Your task to perform on an android device: Open calendar and show me the third week of next month Image 0: 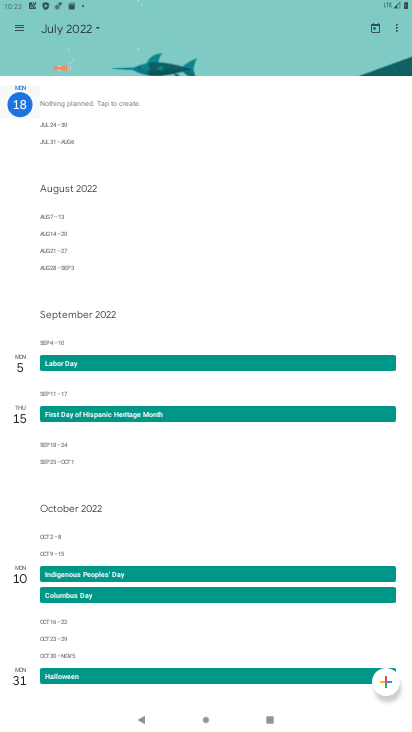
Step 0: click (53, 29)
Your task to perform on an android device: Open calendar and show me the third week of next month Image 1: 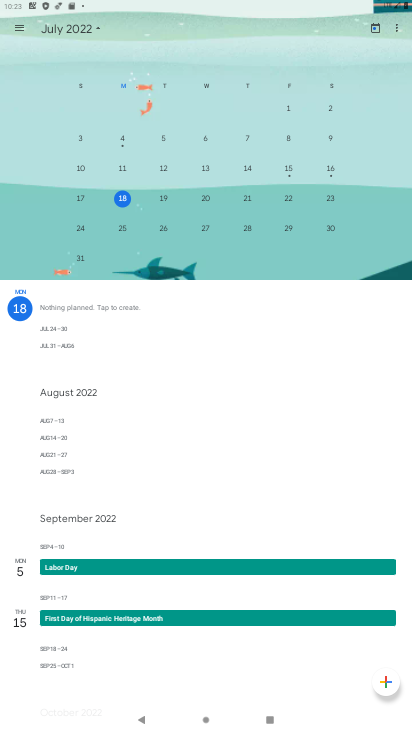
Step 1: drag from (73, 225) to (19, 264)
Your task to perform on an android device: Open calendar and show me the third week of next month Image 2: 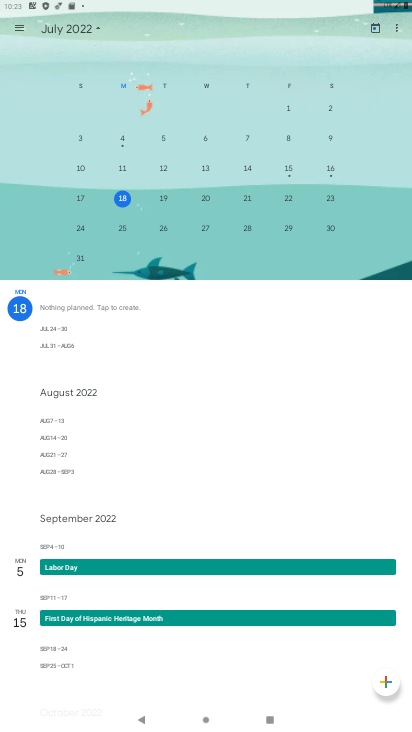
Step 2: drag from (377, 178) to (32, 303)
Your task to perform on an android device: Open calendar and show me the third week of next month Image 3: 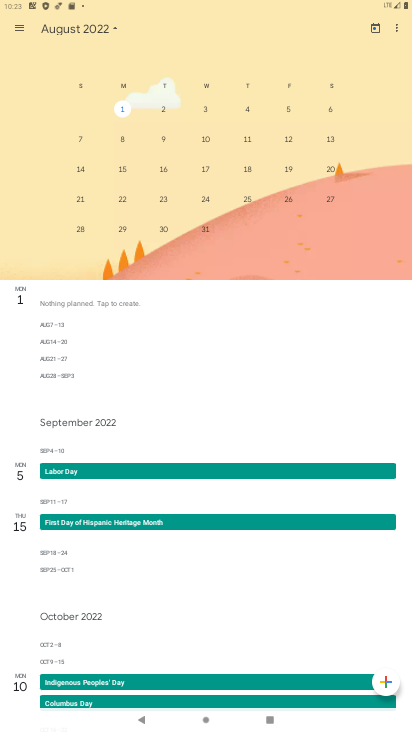
Step 3: click (81, 167)
Your task to perform on an android device: Open calendar and show me the third week of next month Image 4: 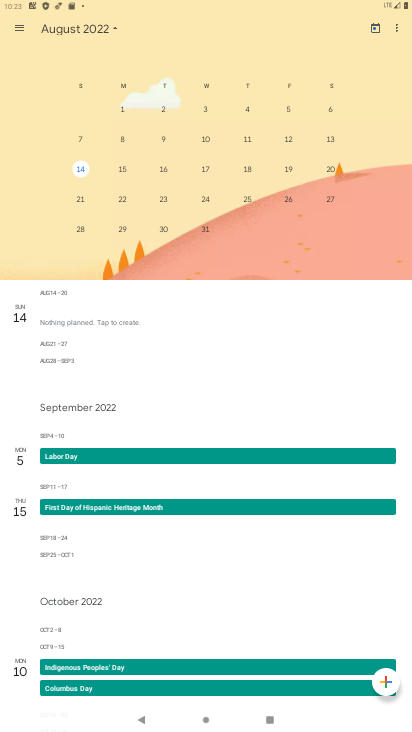
Step 4: task complete